Your task to perform on an android device: toggle priority inbox in the gmail app Image 0: 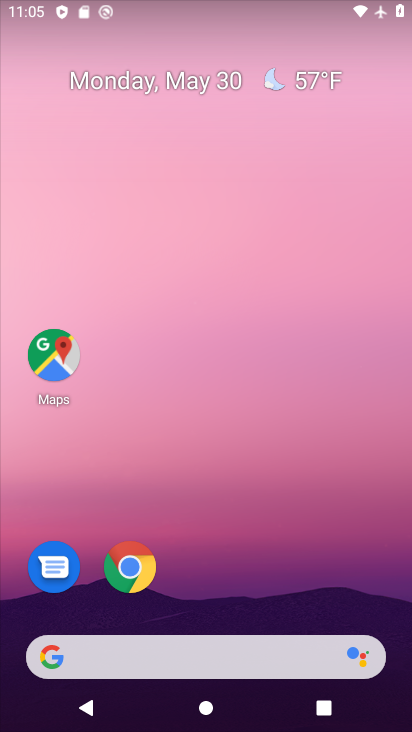
Step 0: drag from (236, 606) to (216, 217)
Your task to perform on an android device: toggle priority inbox in the gmail app Image 1: 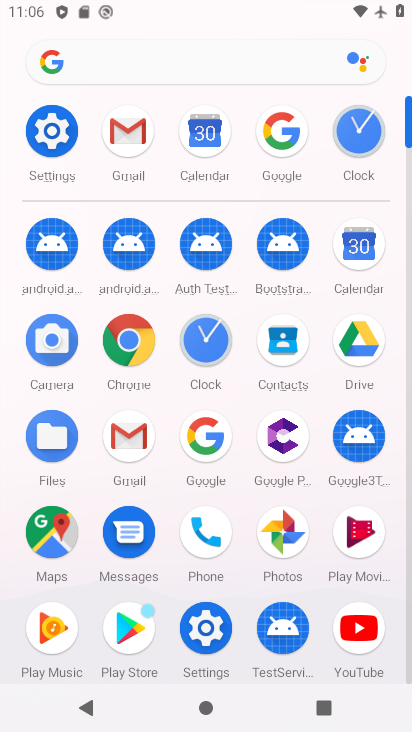
Step 1: click (133, 156)
Your task to perform on an android device: toggle priority inbox in the gmail app Image 2: 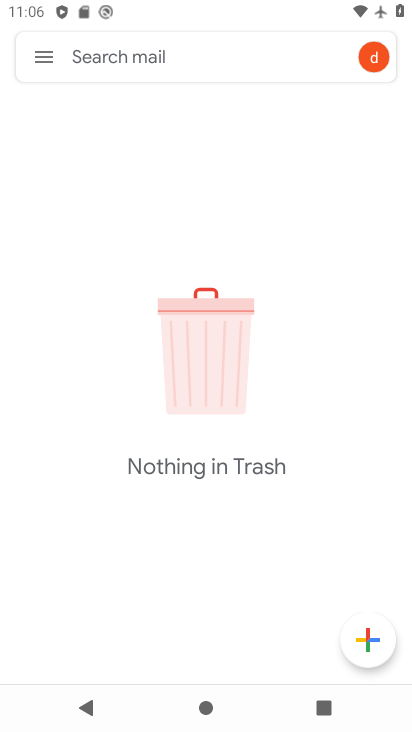
Step 2: click (41, 52)
Your task to perform on an android device: toggle priority inbox in the gmail app Image 3: 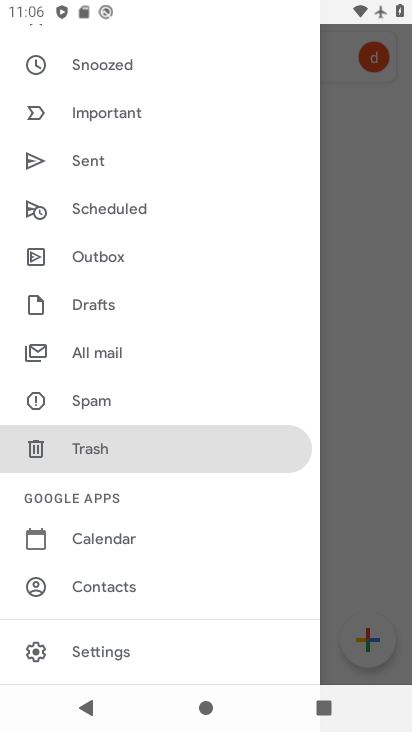
Step 3: click (117, 648)
Your task to perform on an android device: toggle priority inbox in the gmail app Image 4: 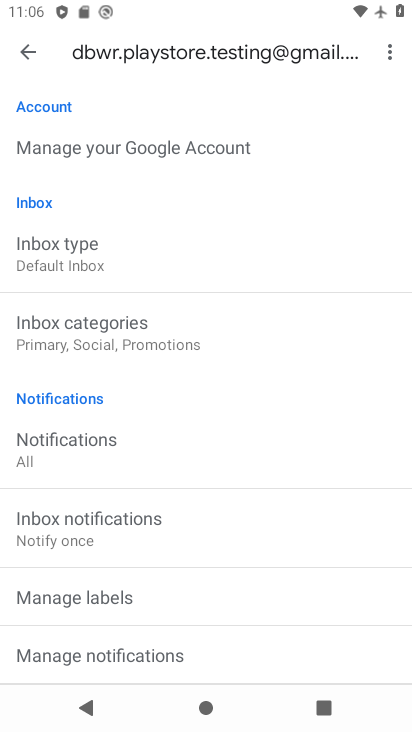
Step 4: click (129, 250)
Your task to perform on an android device: toggle priority inbox in the gmail app Image 5: 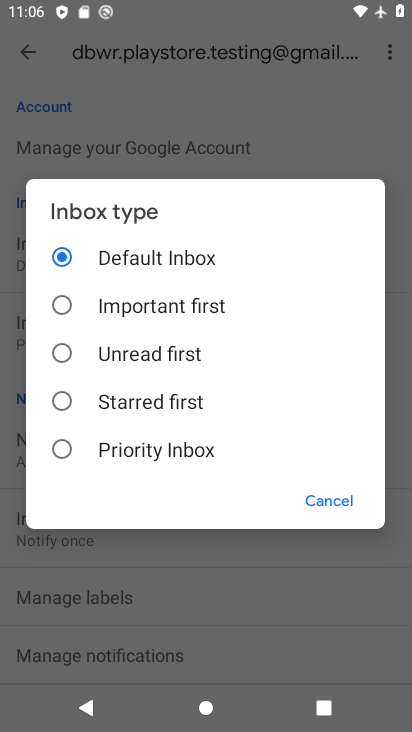
Step 5: click (156, 457)
Your task to perform on an android device: toggle priority inbox in the gmail app Image 6: 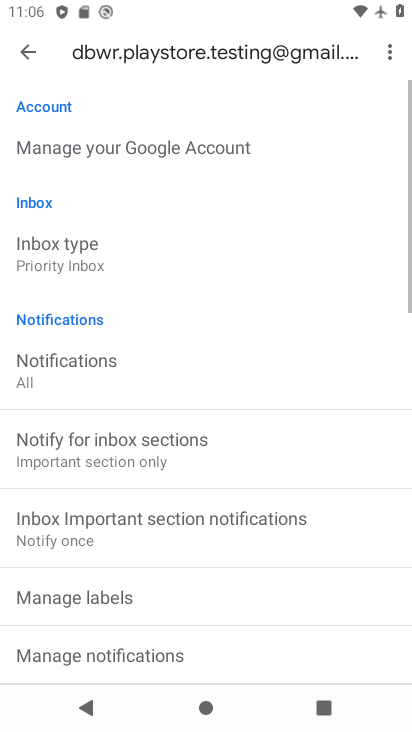
Step 6: task complete